Your task to perform on an android device: What is the recent news? Image 0: 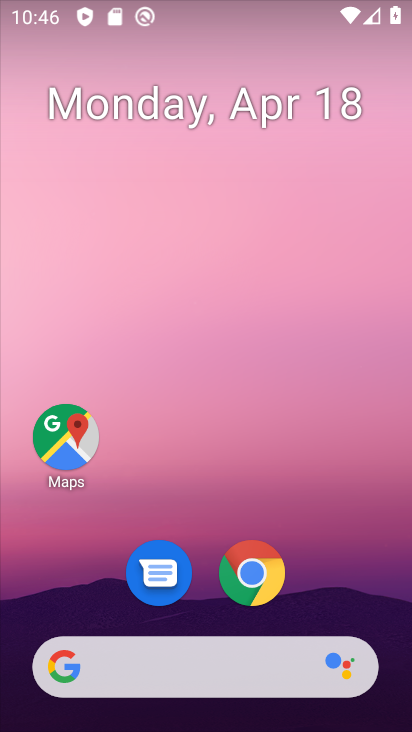
Step 0: click (249, 588)
Your task to perform on an android device: What is the recent news? Image 1: 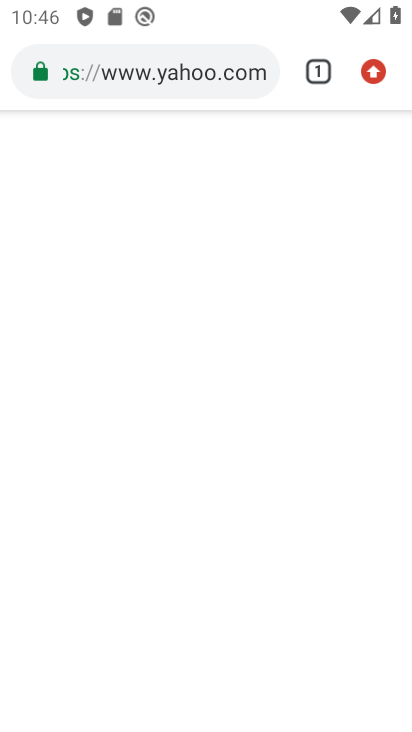
Step 1: click (317, 72)
Your task to perform on an android device: What is the recent news? Image 2: 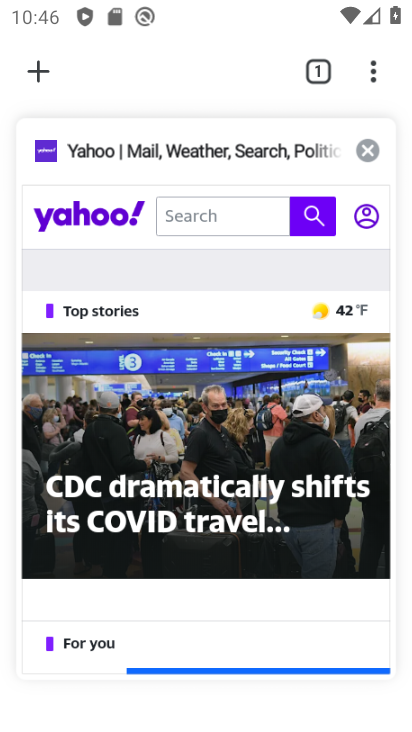
Step 2: click (36, 72)
Your task to perform on an android device: What is the recent news? Image 3: 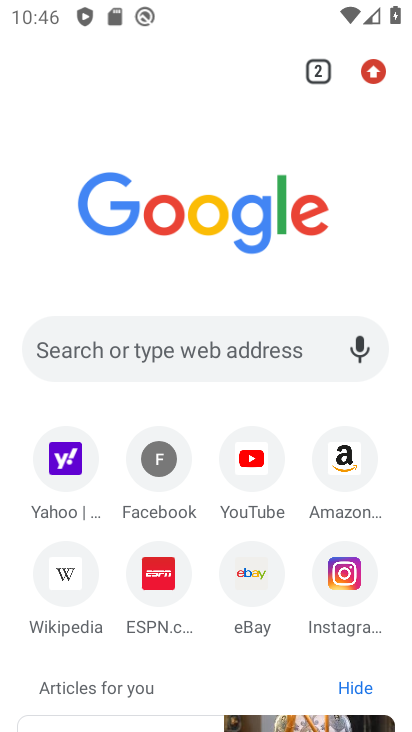
Step 3: click (91, 341)
Your task to perform on an android device: What is the recent news? Image 4: 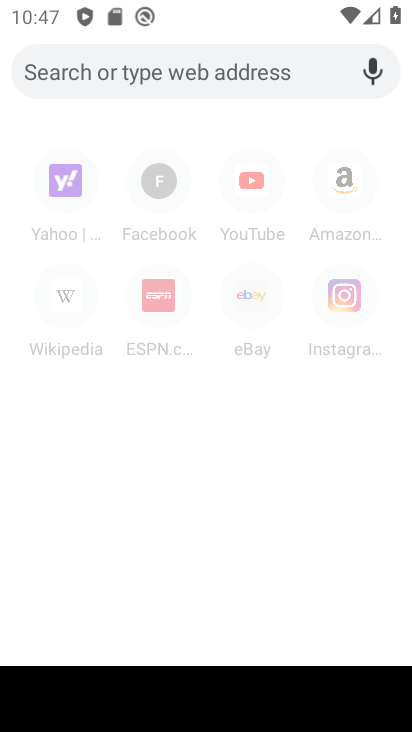
Step 4: type "recent news"
Your task to perform on an android device: What is the recent news? Image 5: 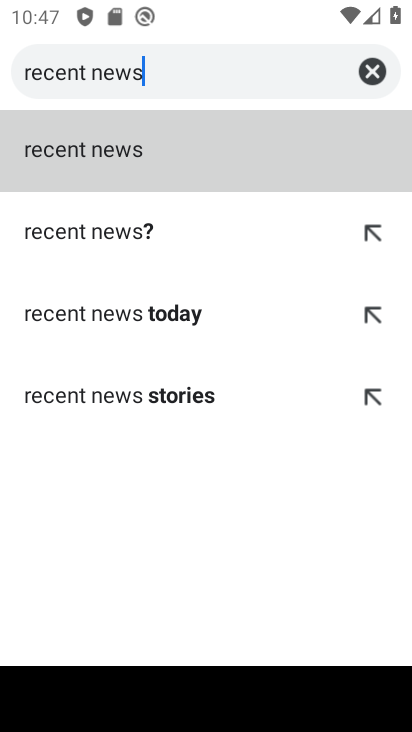
Step 5: click (61, 150)
Your task to perform on an android device: What is the recent news? Image 6: 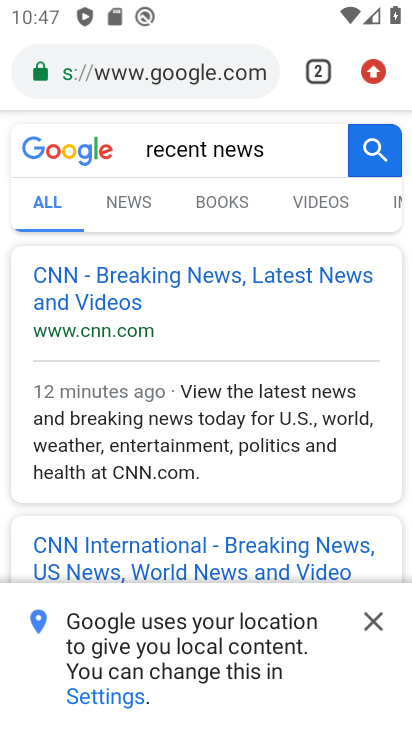
Step 6: task complete